Your task to perform on an android device: open a bookmark in the chrome app Image 0: 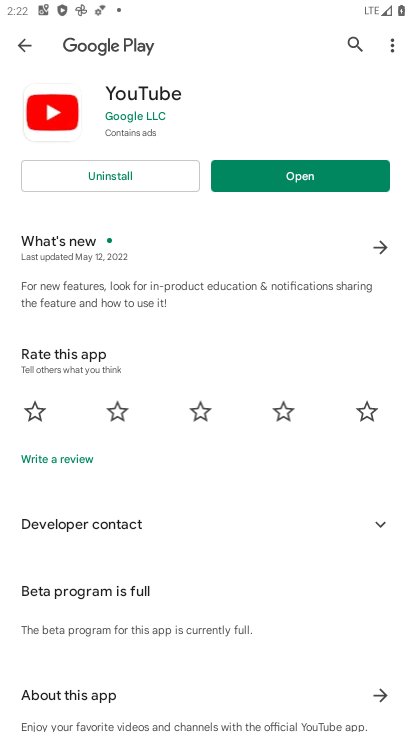
Step 0: press home button
Your task to perform on an android device: open a bookmark in the chrome app Image 1: 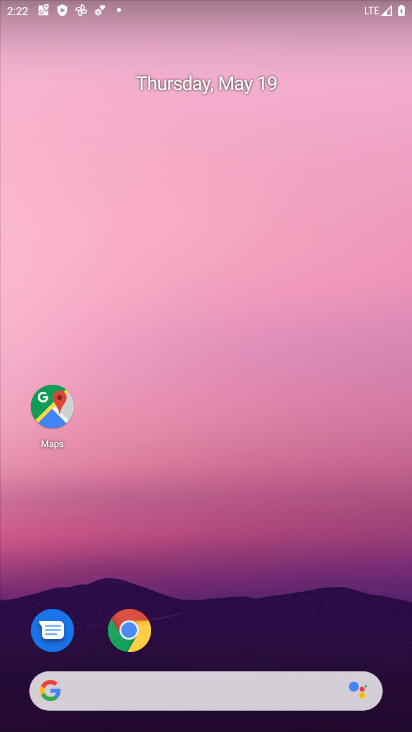
Step 1: click (130, 631)
Your task to perform on an android device: open a bookmark in the chrome app Image 2: 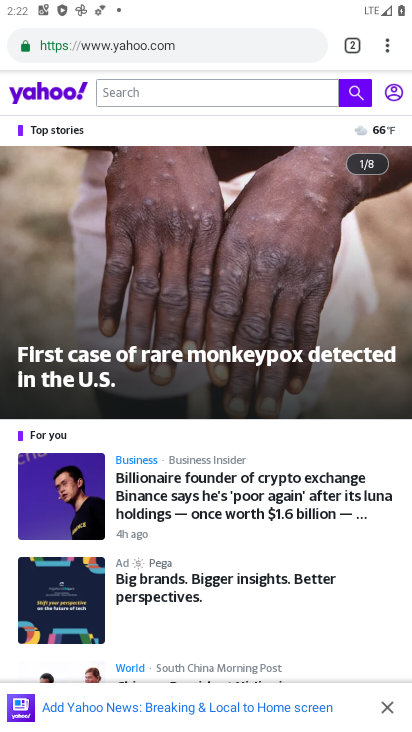
Step 2: click (387, 48)
Your task to perform on an android device: open a bookmark in the chrome app Image 3: 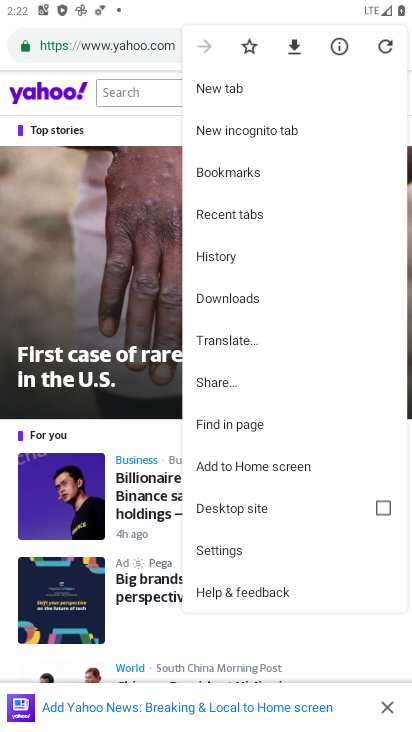
Step 3: click (231, 165)
Your task to perform on an android device: open a bookmark in the chrome app Image 4: 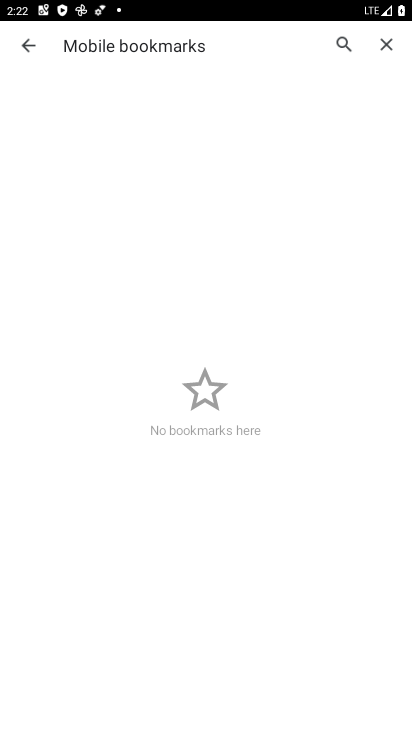
Step 4: task complete